Your task to perform on an android device: Open Maps and search for coffee Image 0: 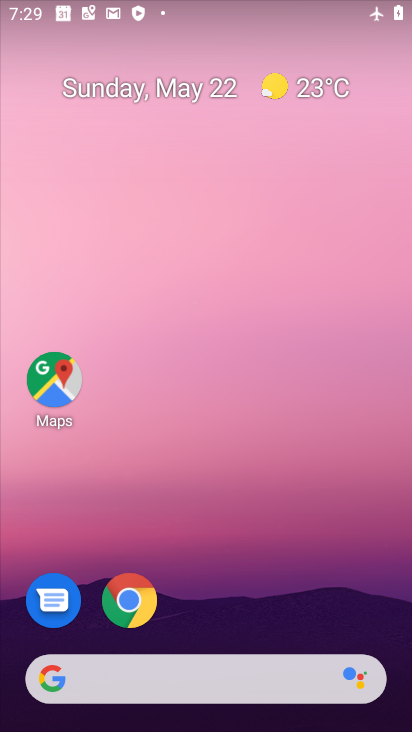
Step 0: drag from (351, 631) to (305, 99)
Your task to perform on an android device: Open Maps and search for coffee Image 1: 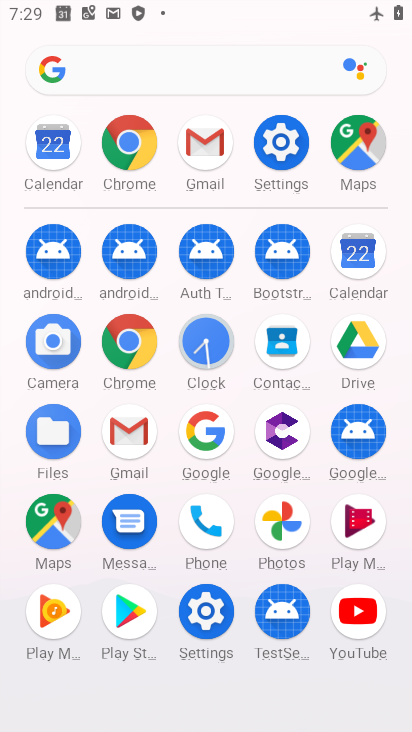
Step 1: click (365, 166)
Your task to perform on an android device: Open Maps and search for coffee Image 2: 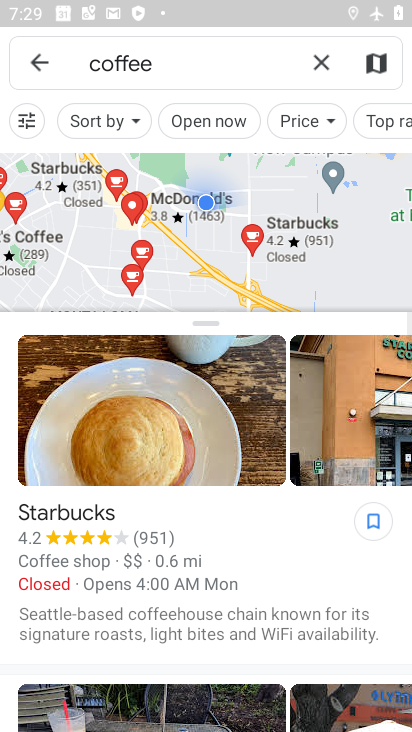
Step 2: press back button
Your task to perform on an android device: Open Maps and search for coffee Image 3: 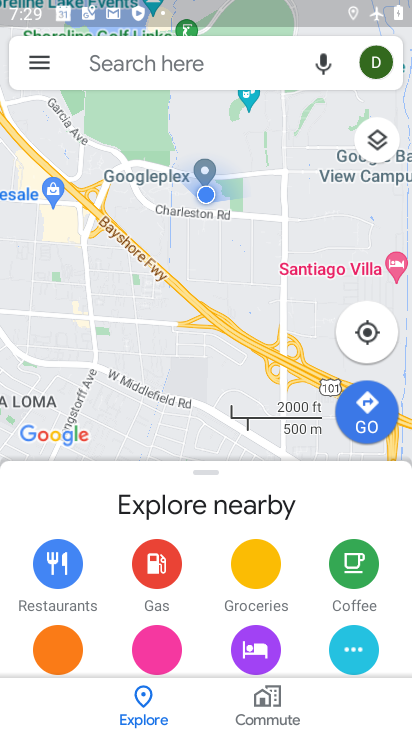
Step 3: click (161, 75)
Your task to perform on an android device: Open Maps and search for coffee Image 4: 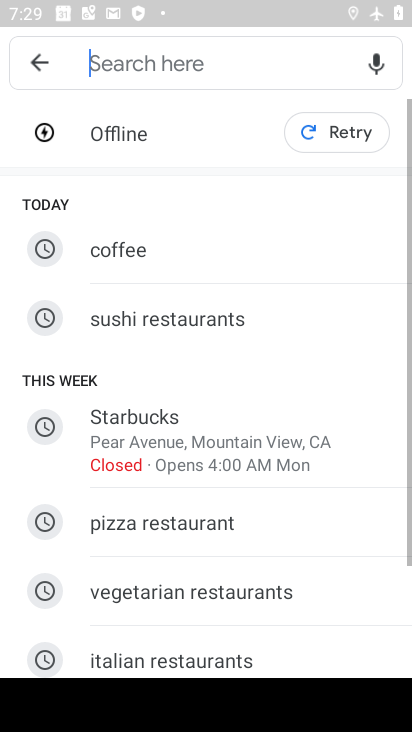
Step 4: click (175, 248)
Your task to perform on an android device: Open Maps and search for coffee Image 5: 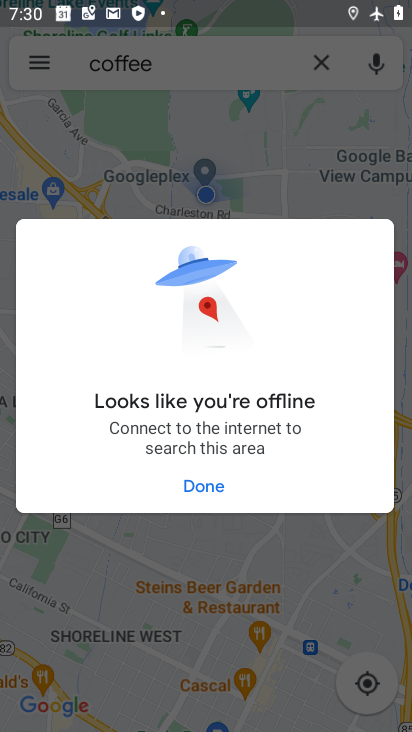
Step 5: task complete